Your task to perform on an android device: Open Google Maps Image 0: 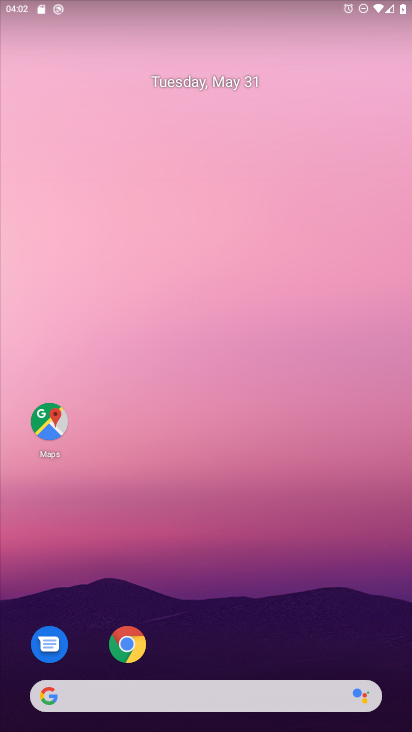
Step 0: drag from (287, 556) to (240, 64)
Your task to perform on an android device: Open Google Maps Image 1: 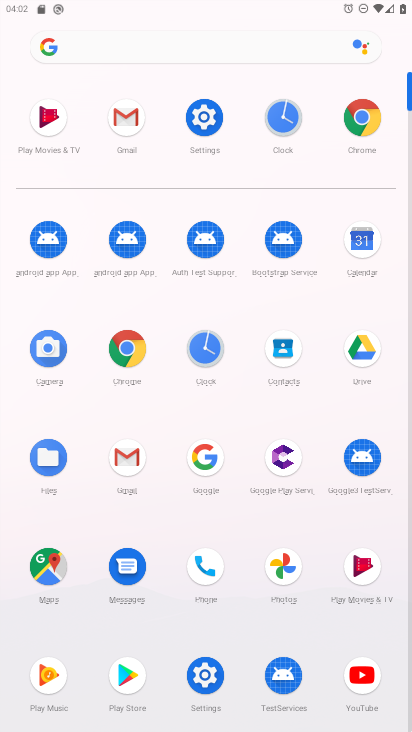
Step 1: click (48, 560)
Your task to perform on an android device: Open Google Maps Image 2: 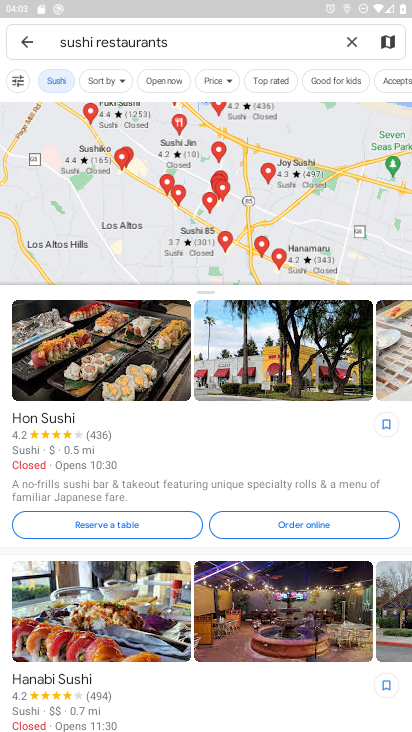
Step 2: task complete